Your task to perform on an android device: Search for Mexican restaurants on Maps Image 0: 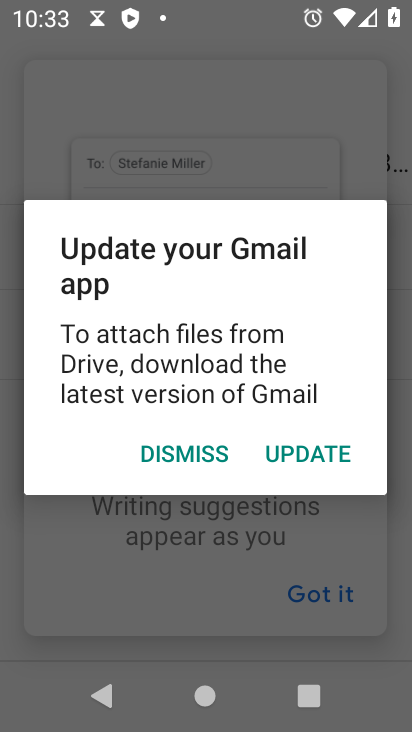
Step 0: press home button
Your task to perform on an android device: Search for Mexican restaurants on Maps Image 1: 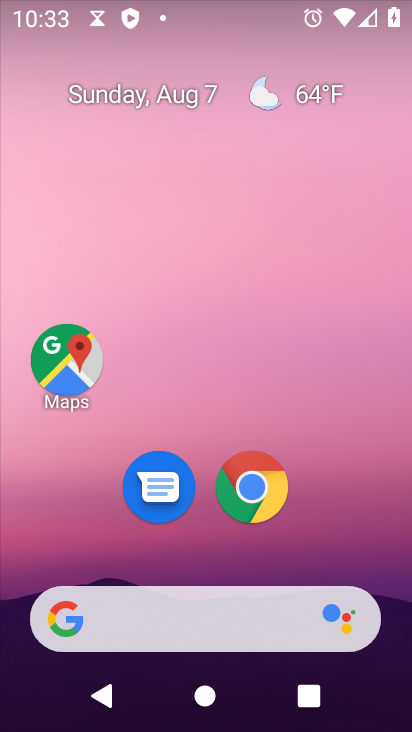
Step 1: click (80, 358)
Your task to perform on an android device: Search for Mexican restaurants on Maps Image 2: 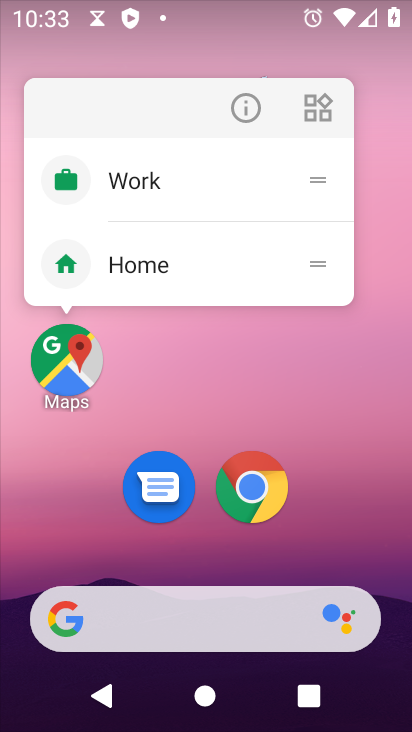
Step 2: click (66, 350)
Your task to perform on an android device: Search for Mexican restaurants on Maps Image 3: 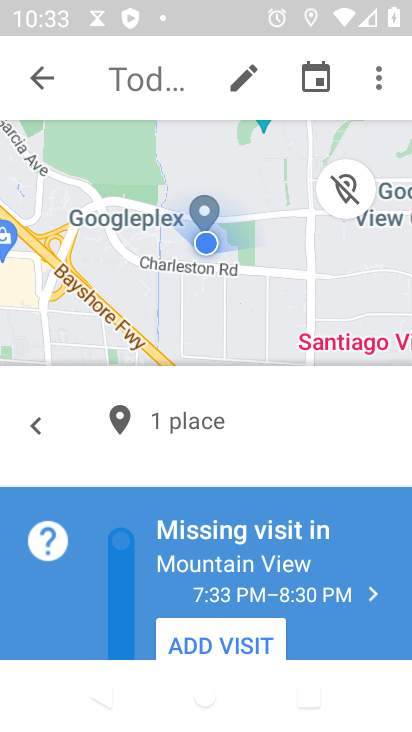
Step 3: click (40, 73)
Your task to perform on an android device: Search for Mexican restaurants on Maps Image 4: 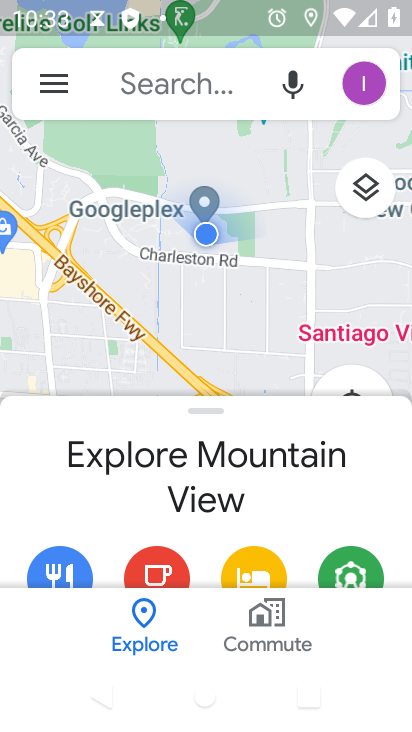
Step 4: click (136, 93)
Your task to perform on an android device: Search for Mexican restaurants on Maps Image 5: 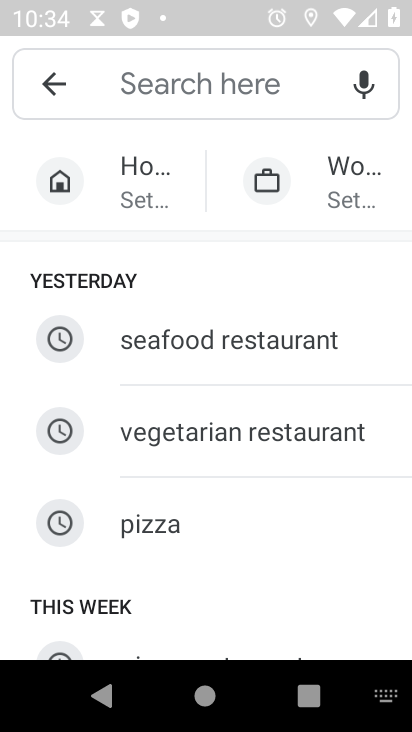
Step 5: type "Mexican restaurants"
Your task to perform on an android device: Search for Mexican restaurants on Maps Image 6: 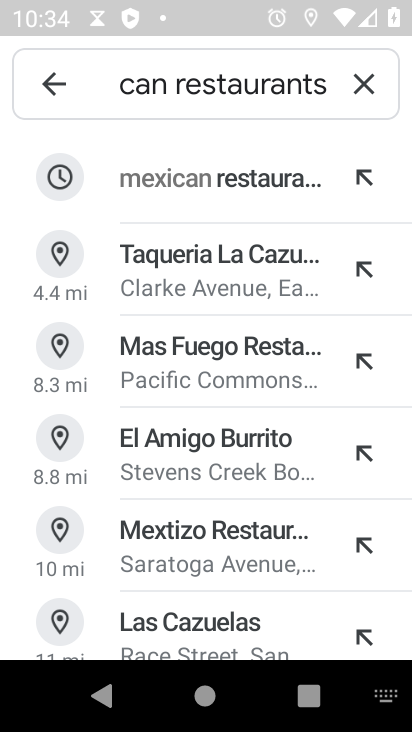
Step 6: click (240, 176)
Your task to perform on an android device: Search for Mexican restaurants on Maps Image 7: 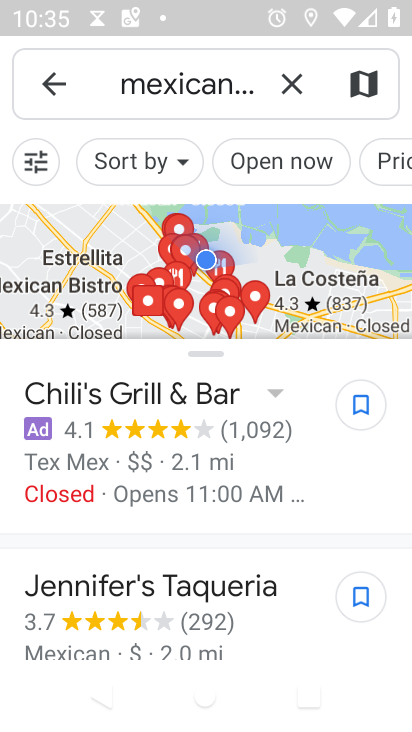
Step 7: task complete